Your task to perform on an android device: empty trash in the gmail app Image 0: 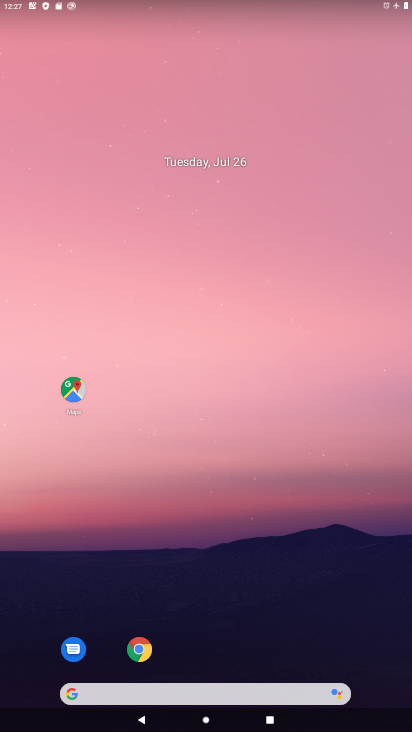
Step 0: drag from (239, 726) to (247, 79)
Your task to perform on an android device: empty trash in the gmail app Image 1: 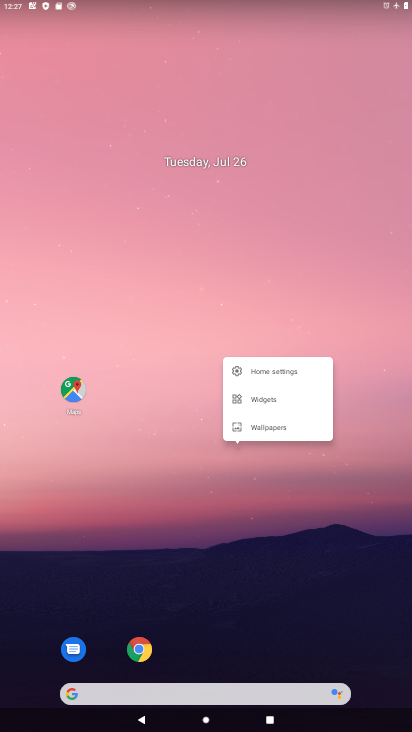
Step 1: click (150, 218)
Your task to perform on an android device: empty trash in the gmail app Image 2: 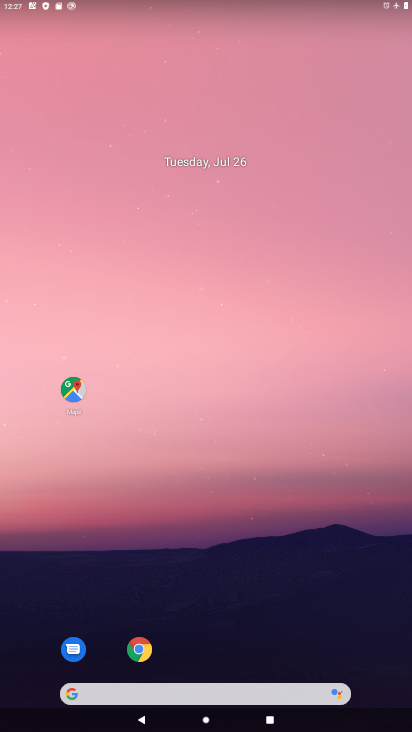
Step 2: drag from (224, 665) to (225, 52)
Your task to perform on an android device: empty trash in the gmail app Image 3: 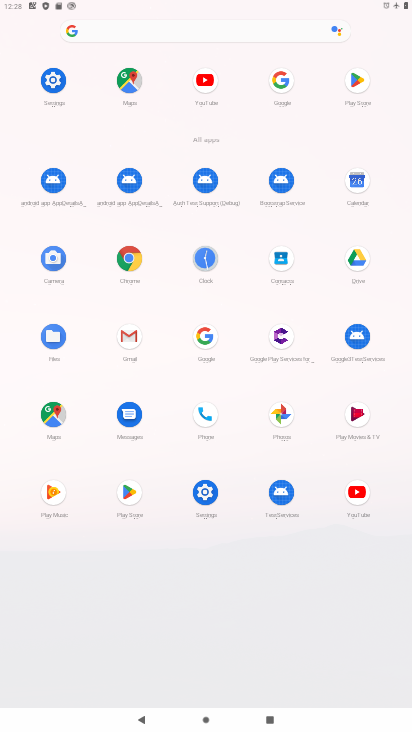
Step 3: click (129, 327)
Your task to perform on an android device: empty trash in the gmail app Image 4: 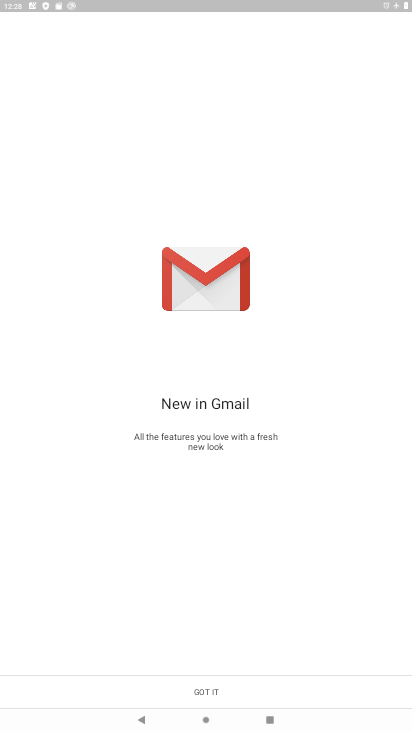
Step 4: click (204, 695)
Your task to perform on an android device: empty trash in the gmail app Image 5: 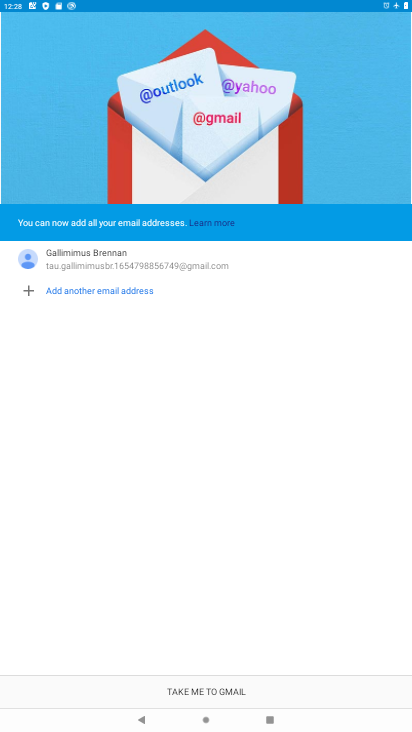
Step 5: click (219, 689)
Your task to perform on an android device: empty trash in the gmail app Image 6: 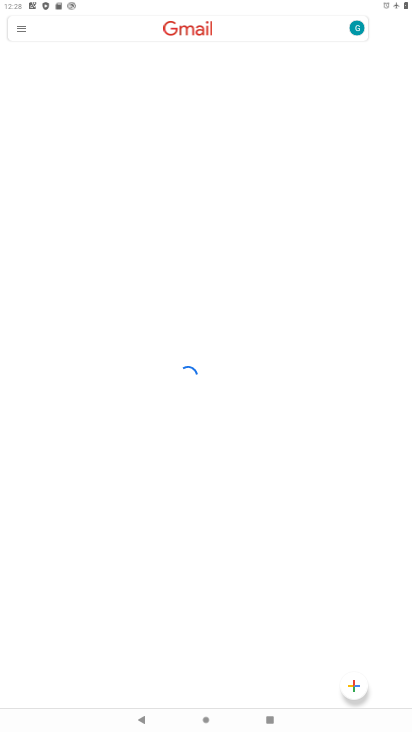
Step 6: click (20, 24)
Your task to perform on an android device: empty trash in the gmail app Image 7: 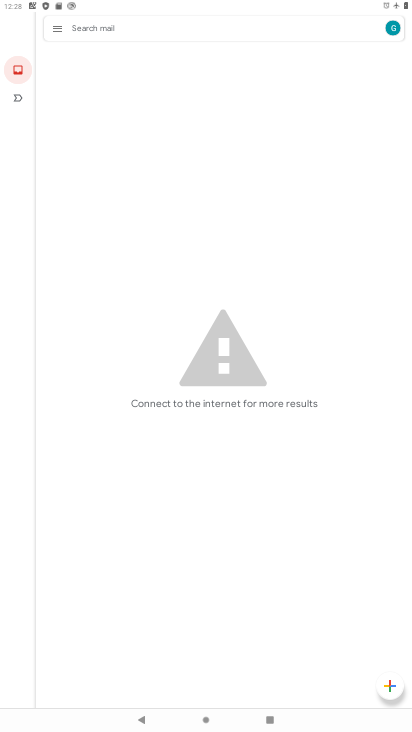
Step 7: click (58, 24)
Your task to perform on an android device: empty trash in the gmail app Image 8: 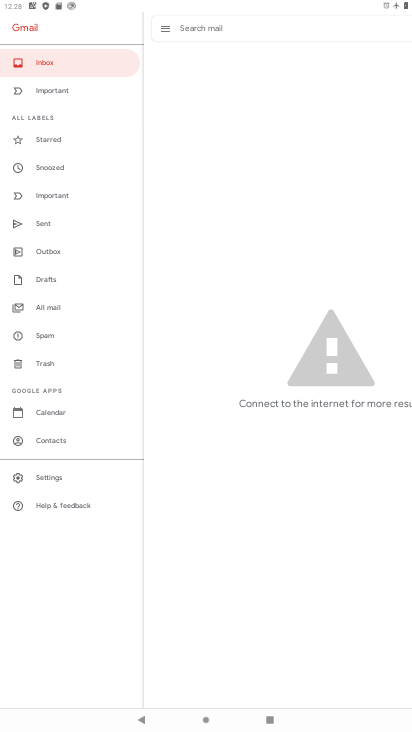
Step 8: click (43, 364)
Your task to perform on an android device: empty trash in the gmail app Image 9: 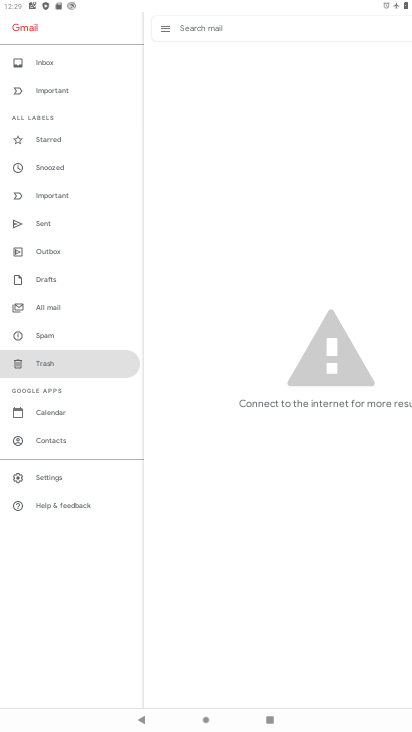
Step 9: task complete